Your task to perform on an android device: What's the weather? Image 0: 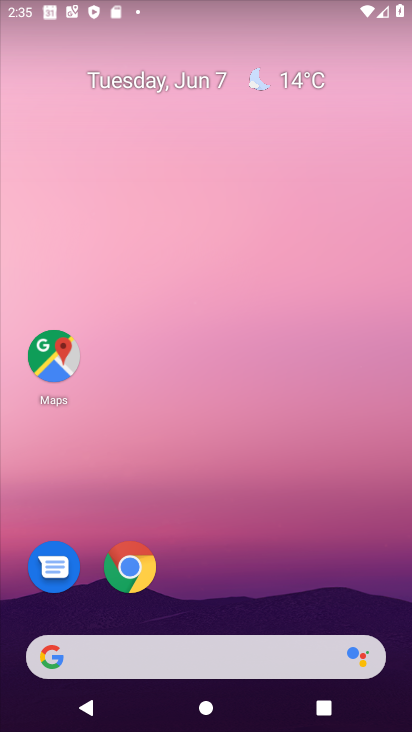
Step 0: drag from (196, 600) to (232, 129)
Your task to perform on an android device: What's the weather? Image 1: 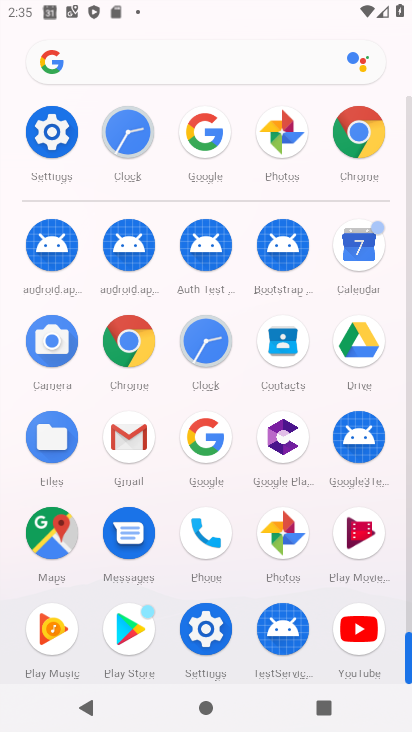
Step 1: click (195, 461)
Your task to perform on an android device: What's the weather? Image 2: 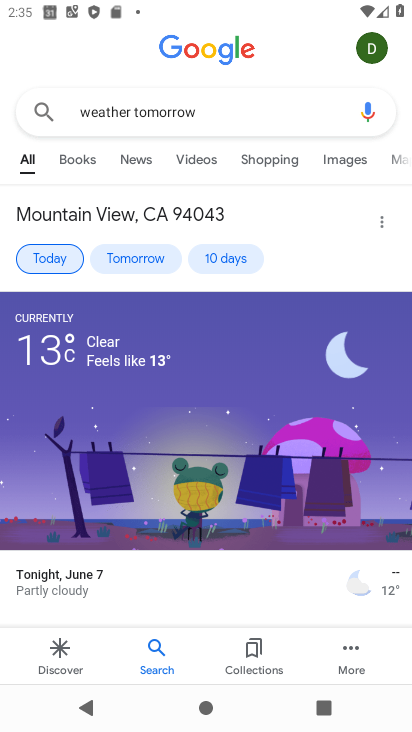
Step 2: click (241, 97)
Your task to perform on an android device: What's the weather? Image 3: 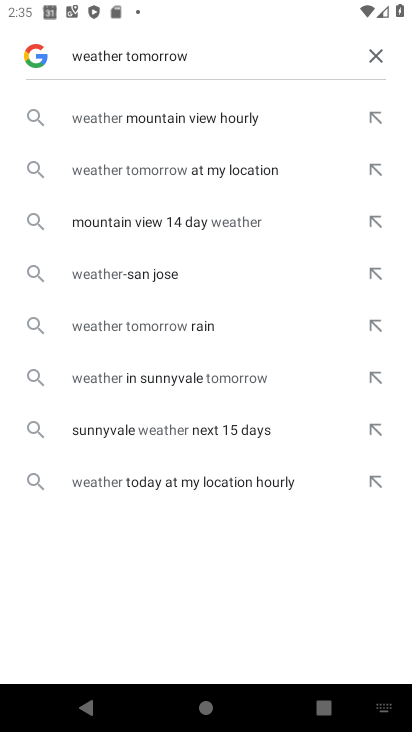
Step 3: click (373, 60)
Your task to perform on an android device: What's the weather? Image 4: 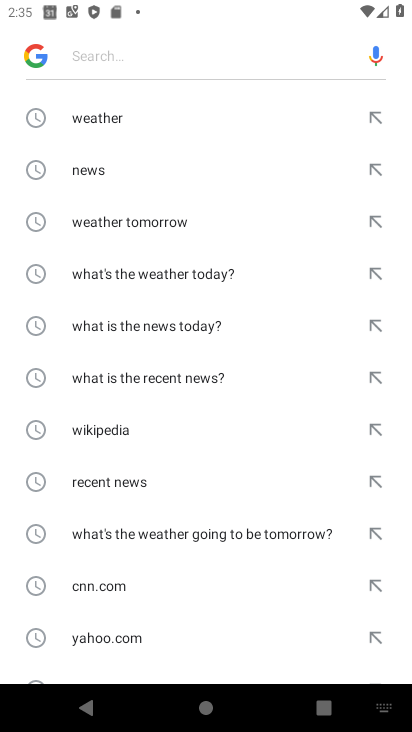
Step 4: click (84, 108)
Your task to perform on an android device: What's the weather? Image 5: 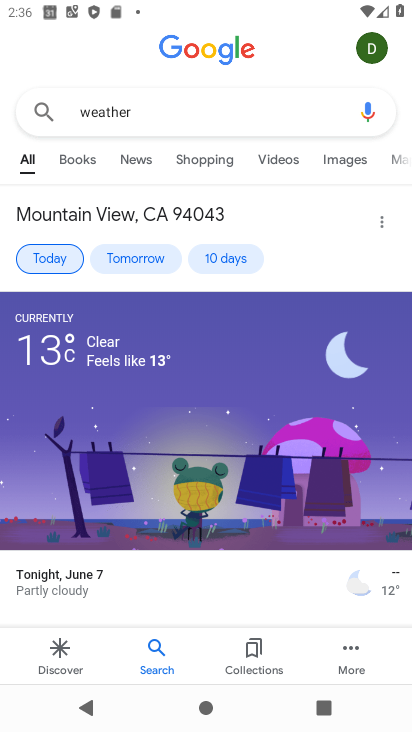
Step 5: task complete